Your task to perform on an android device: Toggle the flashlight Image 0: 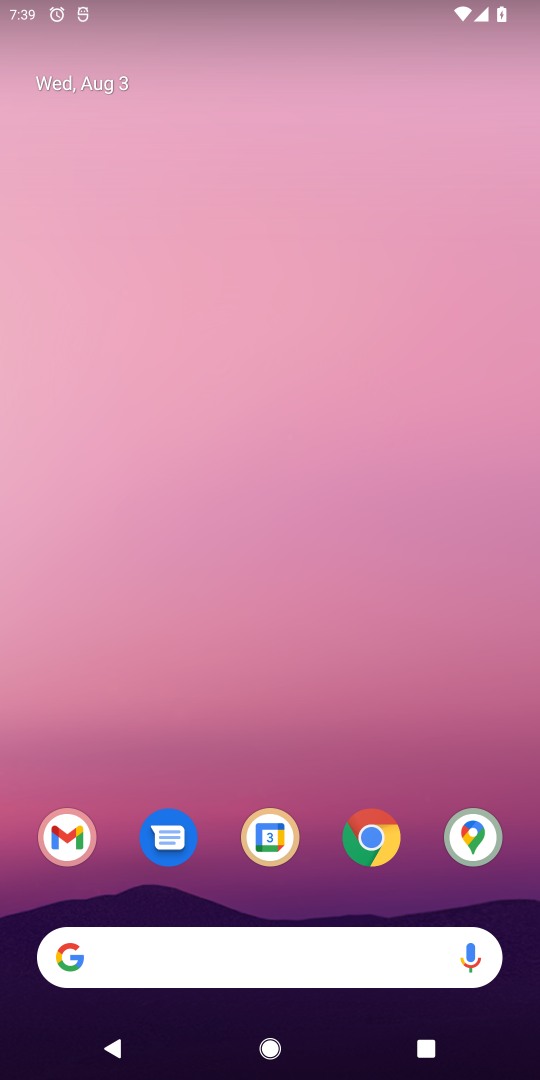
Step 0: press home button
Your task to perform on an android device: Toggle the flashlight Image 1: 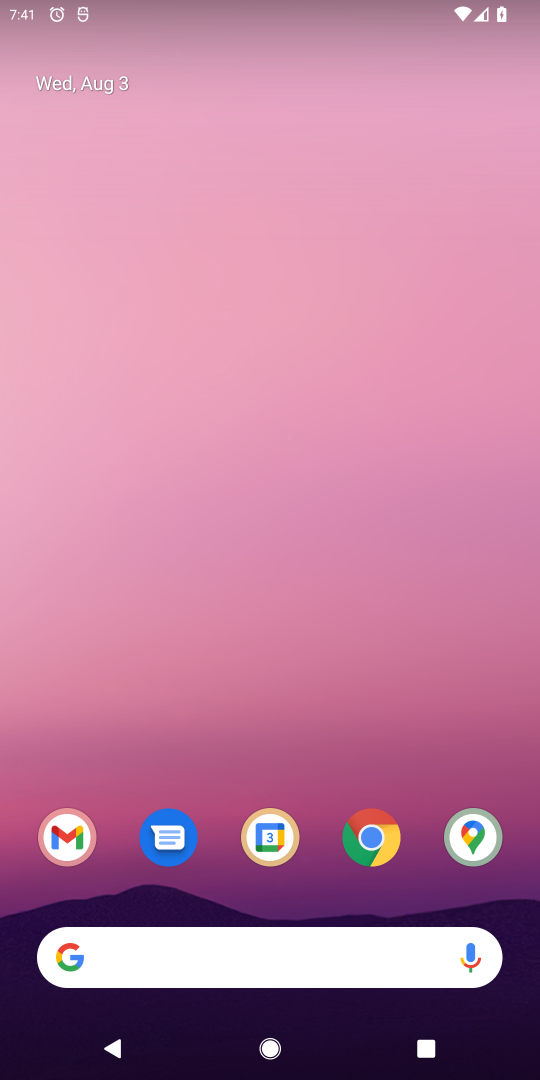
Step 1: task complete